Your task to perform on an android device: Open wifi settings Image 0: 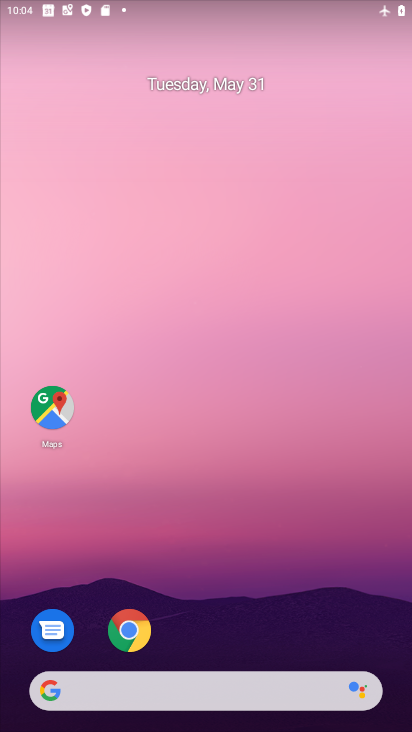
Step 0: drag from (235, 597) to (220, 147)
Your task to perform on an android device: Open wifi settings Image 1: 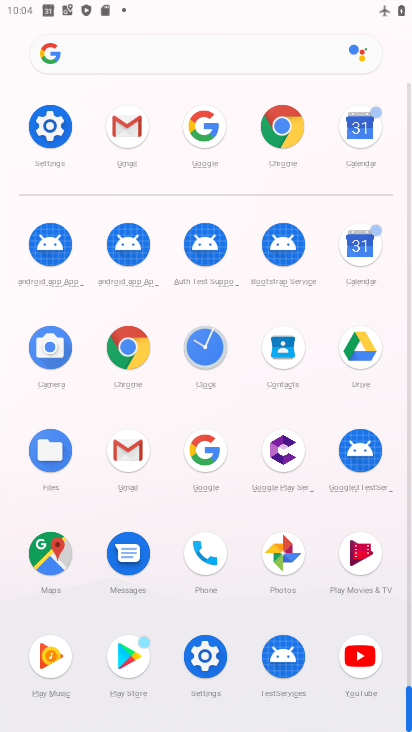
Step 1: click (201, 645)
Your task to perform on an android device: Open wifi settings Image 2: 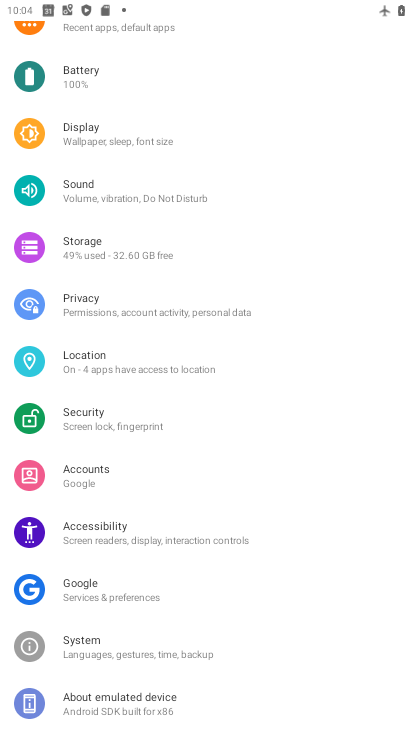
Step 2: drag from (133, 128) to (126, 528)
Your task to perform on an android device: Open wifi settings Image 3: 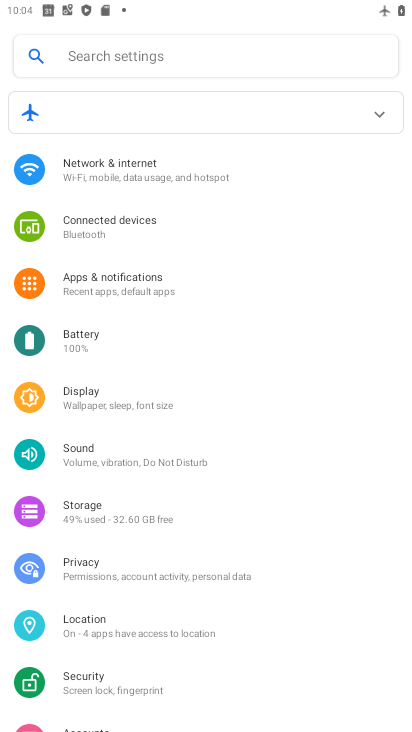
Step 3: click (140, 171)
Your task to perform on an android device: Open wifi settings Image 4: 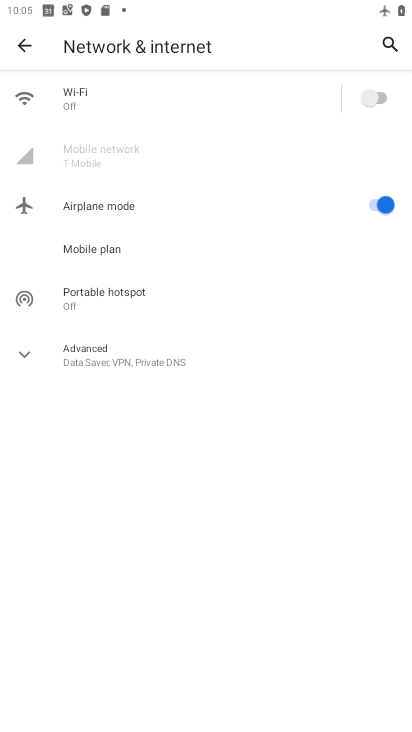
Step 4: task complete